Your task to perform on an android device: Go to Yahoo.com Image 0: 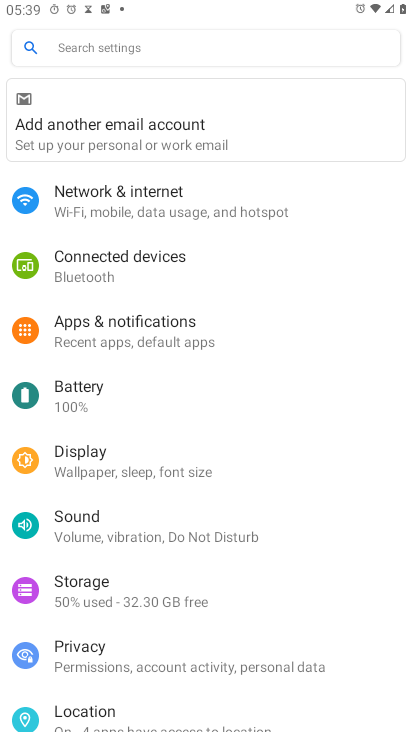
Step 0: press home button
Your task to perform on an android device: Go to Yahoo.com Image 1: 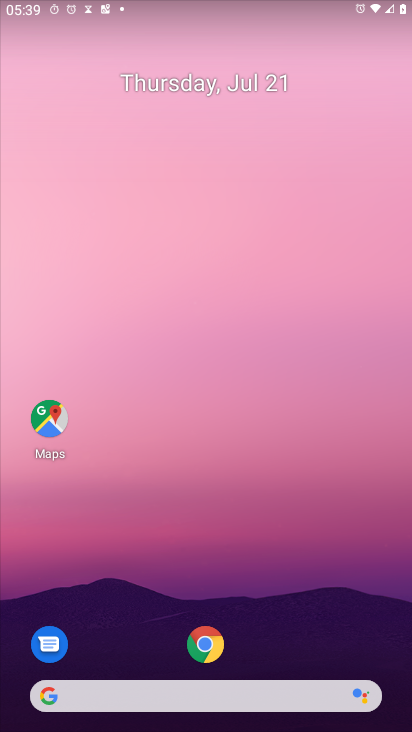
Step 1: click (47, 695)
Your task to perform on an android device: Go to Yahoo.com Image 2: 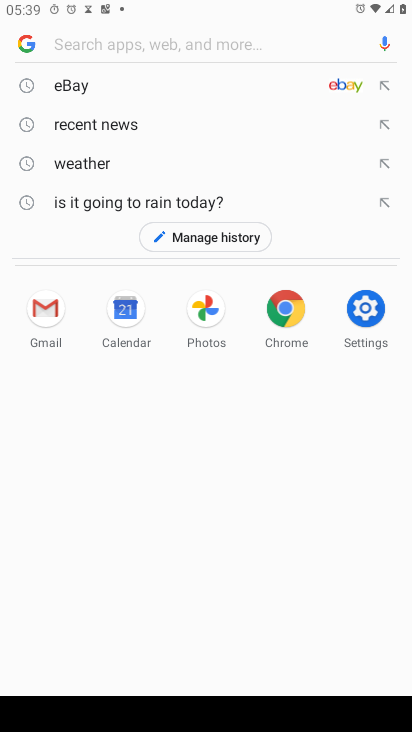
Step 2: type "Yahoo.com"
Your task to perform on an android device: Go to Yahoo.com Image 3: 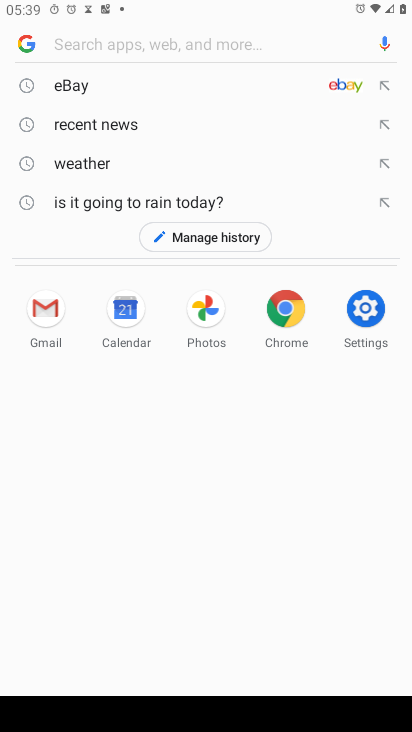
Step 3: click (66, 46)
Your task to perform on an android device: Go to Yahoo.com Image 4: 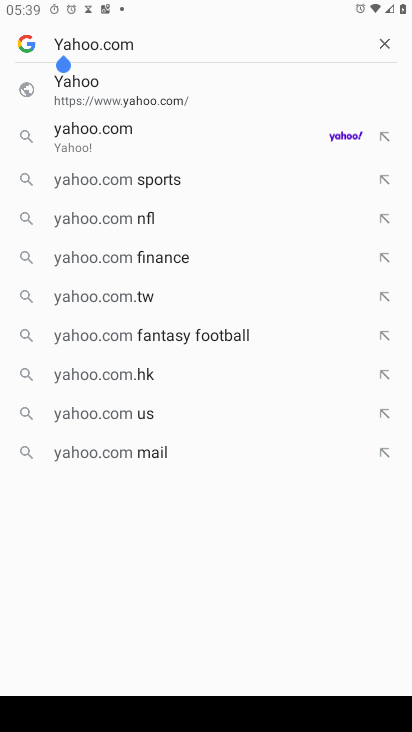
Step 4: press enter
Your task to perform on an android device: Go to Yahoo.com Image 5: 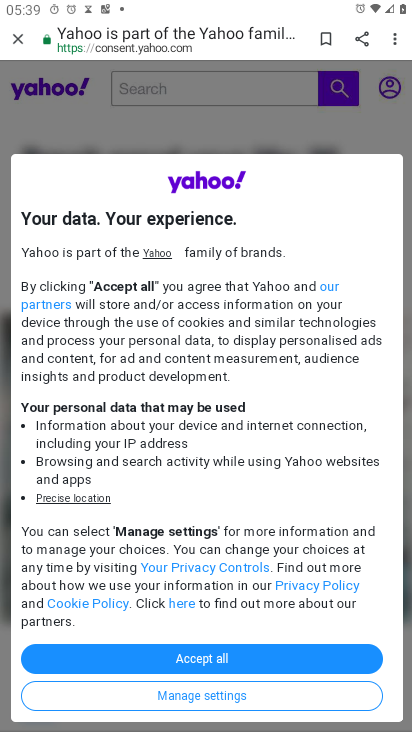
Step 5: click (233, 652)
Your task to perform on an android device: Go to Yahoo.com Image 6: 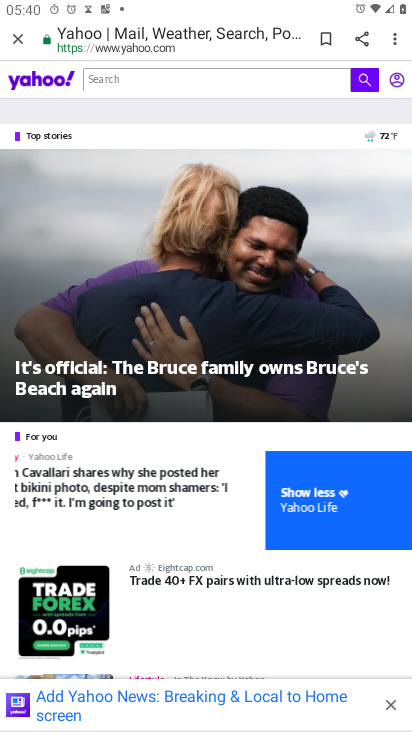
Step 6: task complete